Your task to perform on an android device: open app "Lyft - Rideshare, Bikes, Scooters & Transit" Image 0: 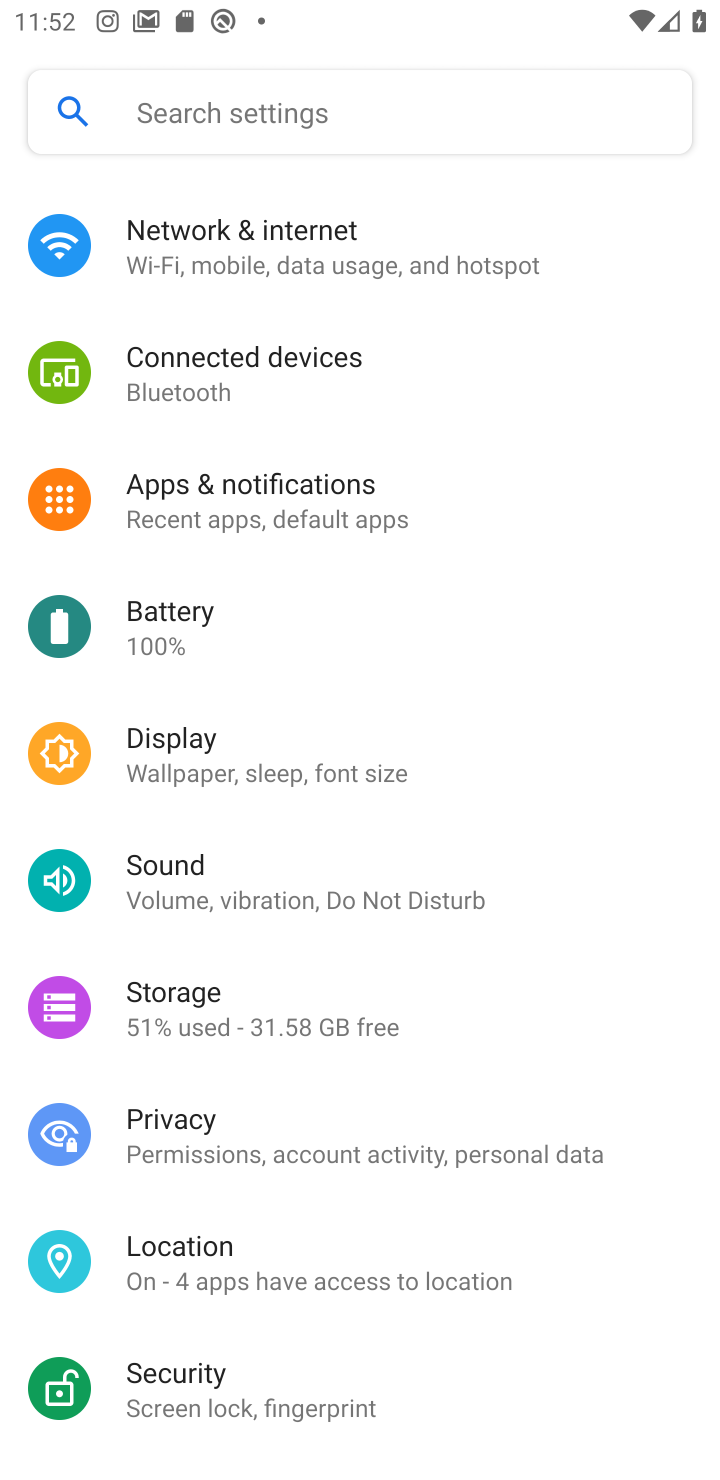
Step 0: press home button
Your task to perform on an android device: open app "Lyft - Rideshare, Bikes, Scooters & Transit" Image 1: 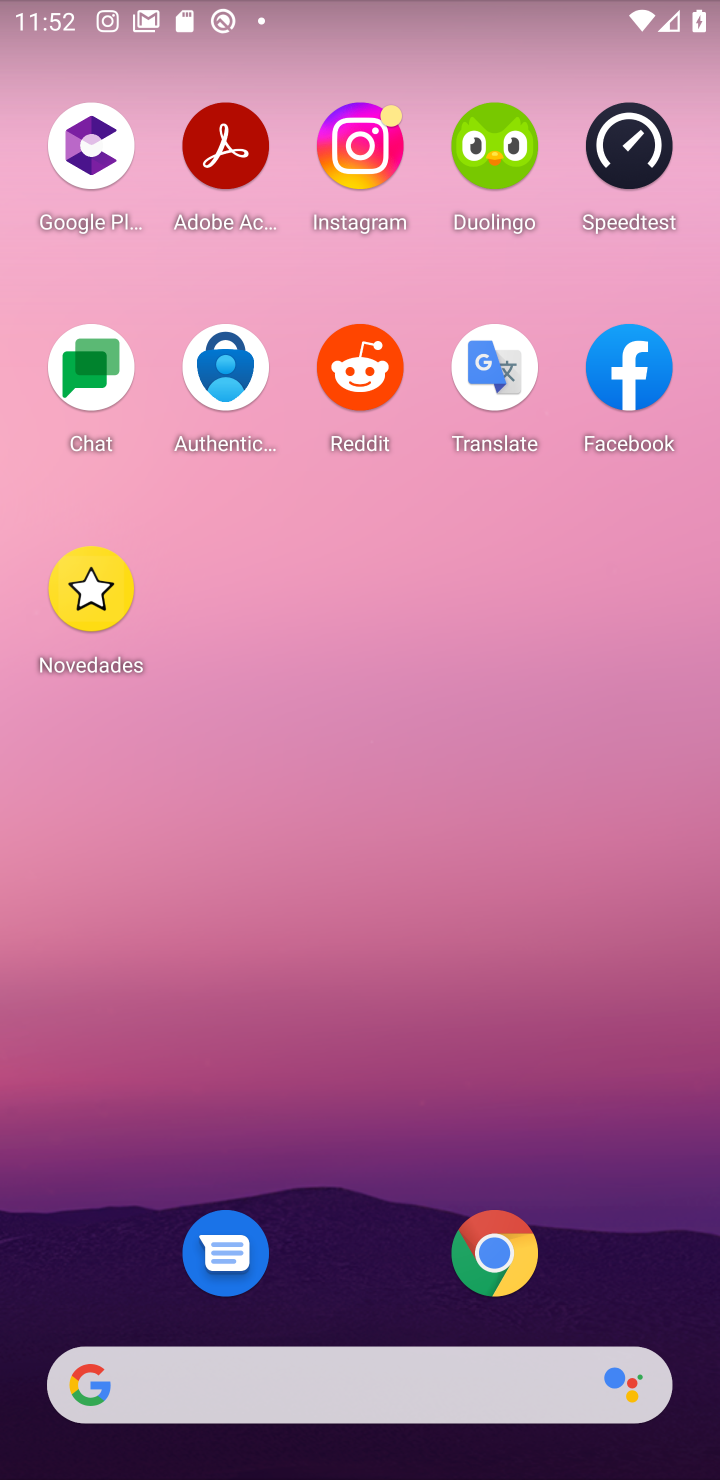
Step 1: drag from (307, 955) to (433, 129)
Your task to perform on an android device: open app "Lyft - Rideshare, Bikes, Scooters & Transit" Image 2: 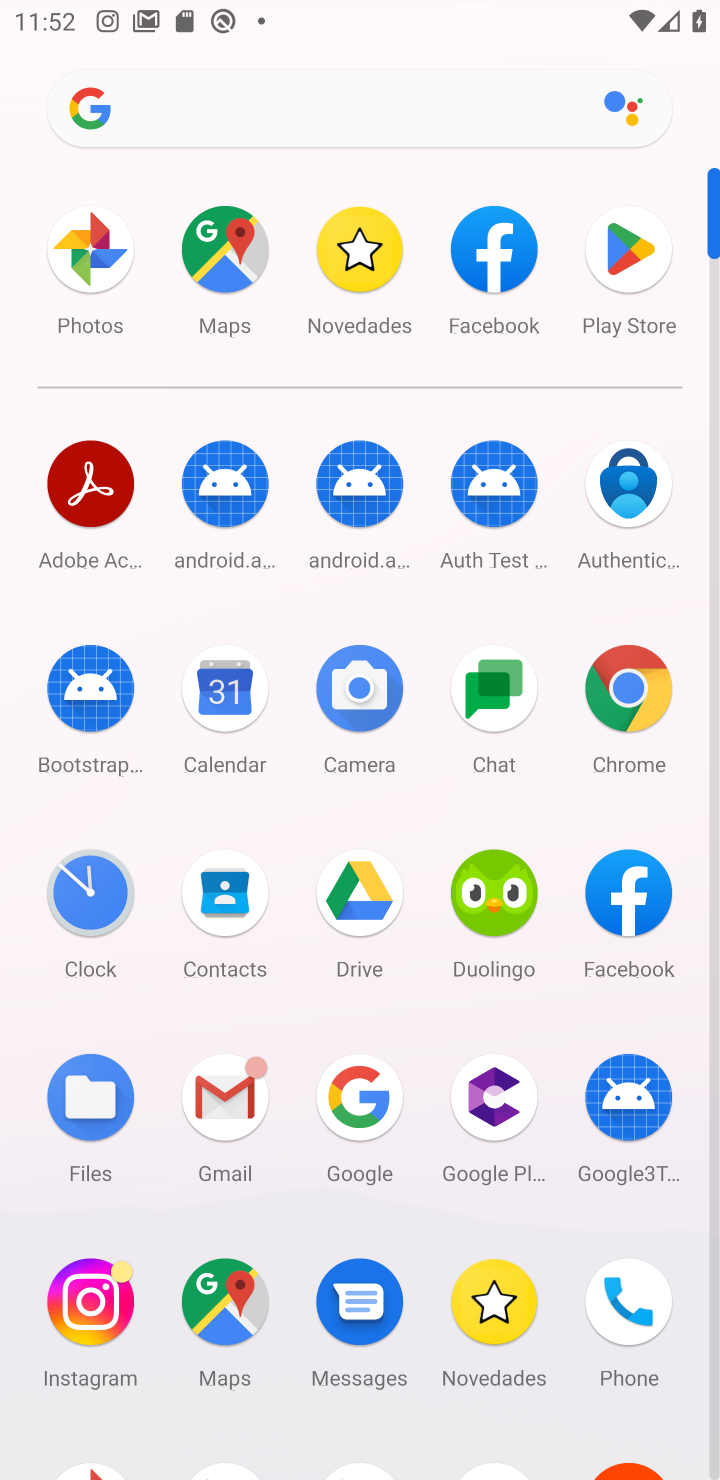
Step 2: click (626, 265)
Your task to perform on an android device: open app "Lyft - Rideshare, Bikes, Scooters & Transit" Image 3: 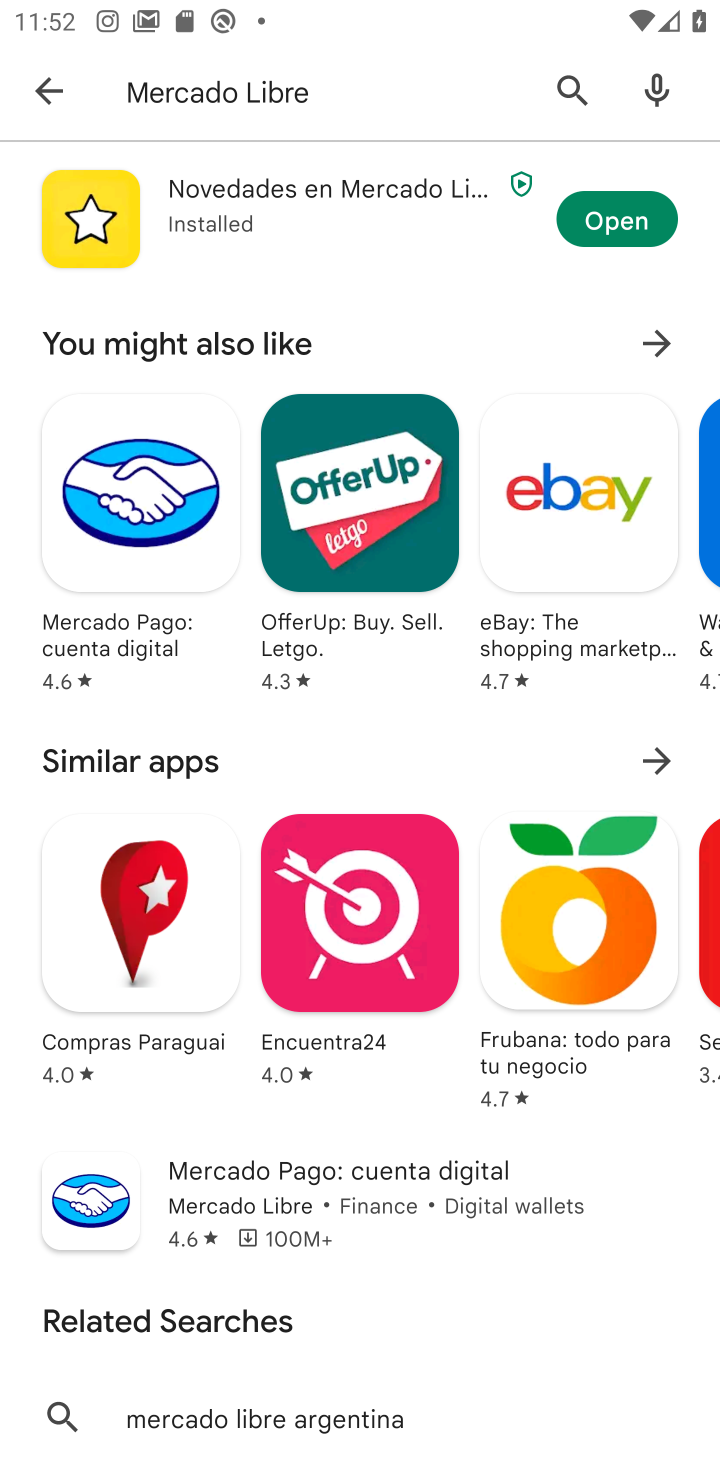
Step 3: click (359, 72)
Your task to perform on an android device: open app "Lyft - Rideshare, Bikes, Scooters & Transit" Image 4: 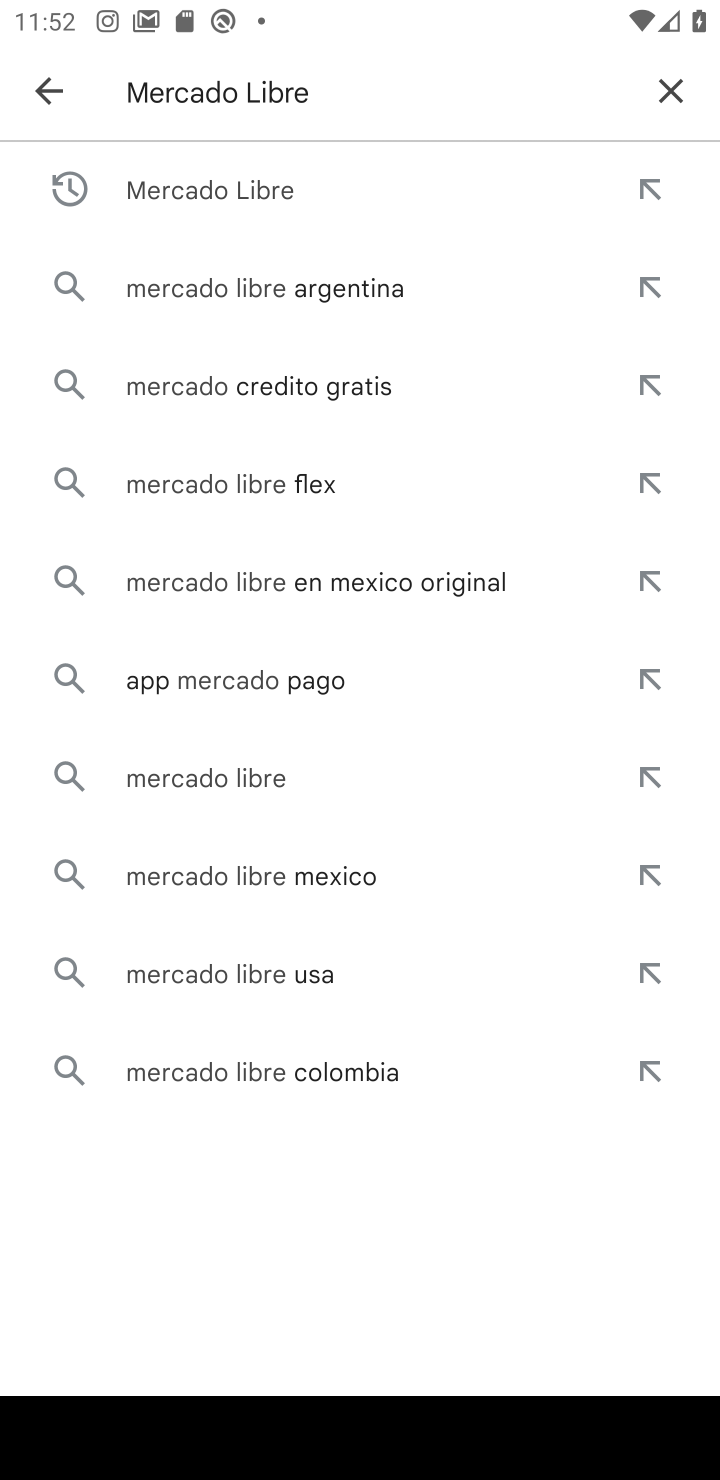
Step 4: click (674, 87)
Your task to perform on an android device: open app "Lyft - Rideshare, Bikes, Scooters & Transit" Image 5: 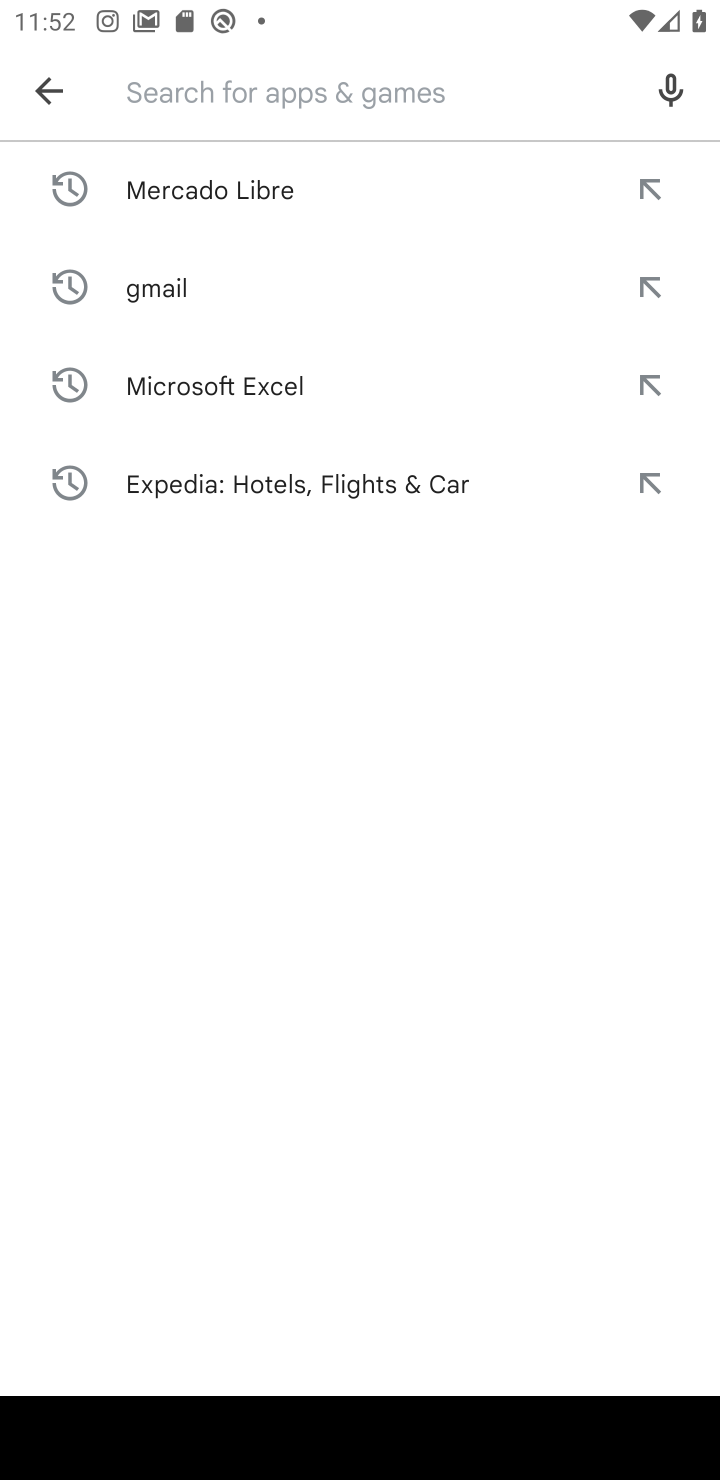
Step 5: type "Lyft - Rideshare, Bikes, Scooters & Transit"
Your task to perform on an android device: open app "Lyft - Rideshare, Bikes, Scooters & Transit" Image 6: 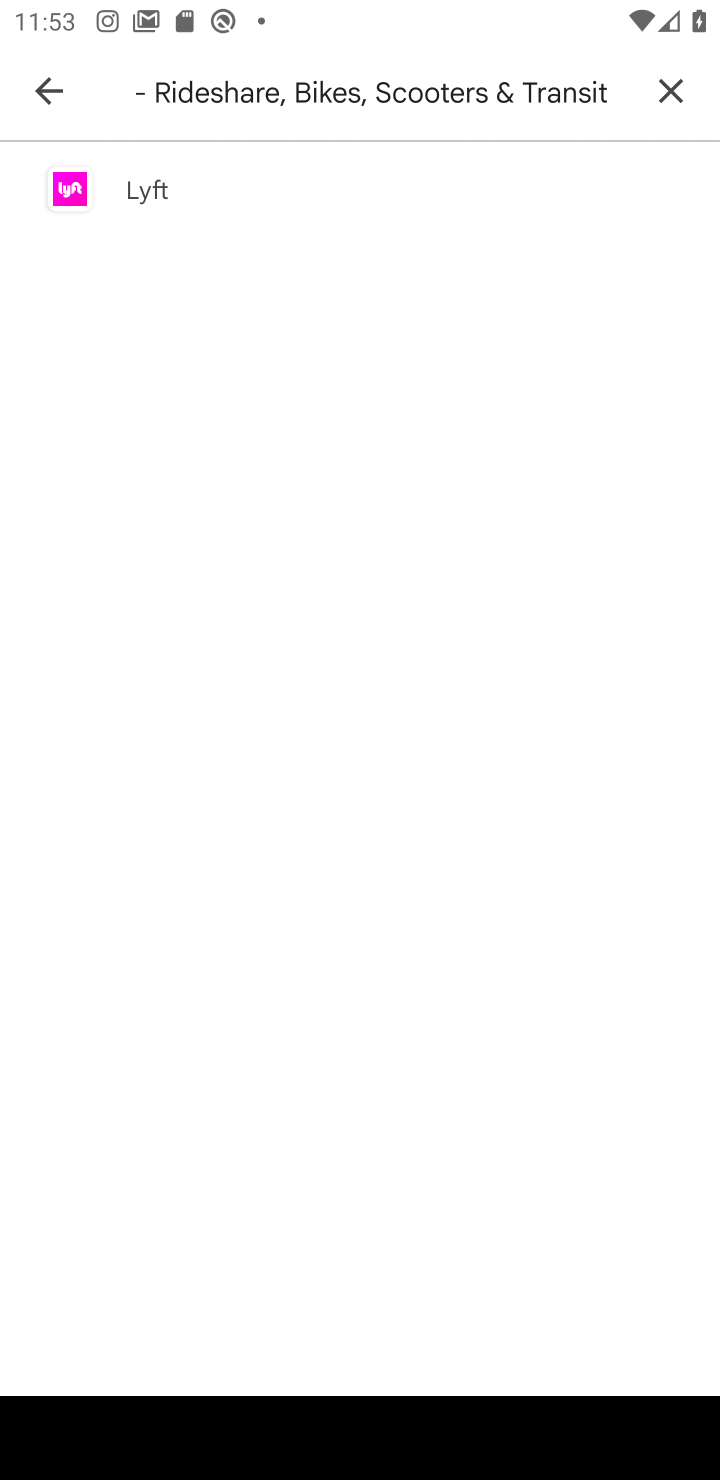
Step 6: press enter
Your task to perform on an android device: open app "Lyft - Rideshare, Bikes, Scooters & Transit" Image 7: 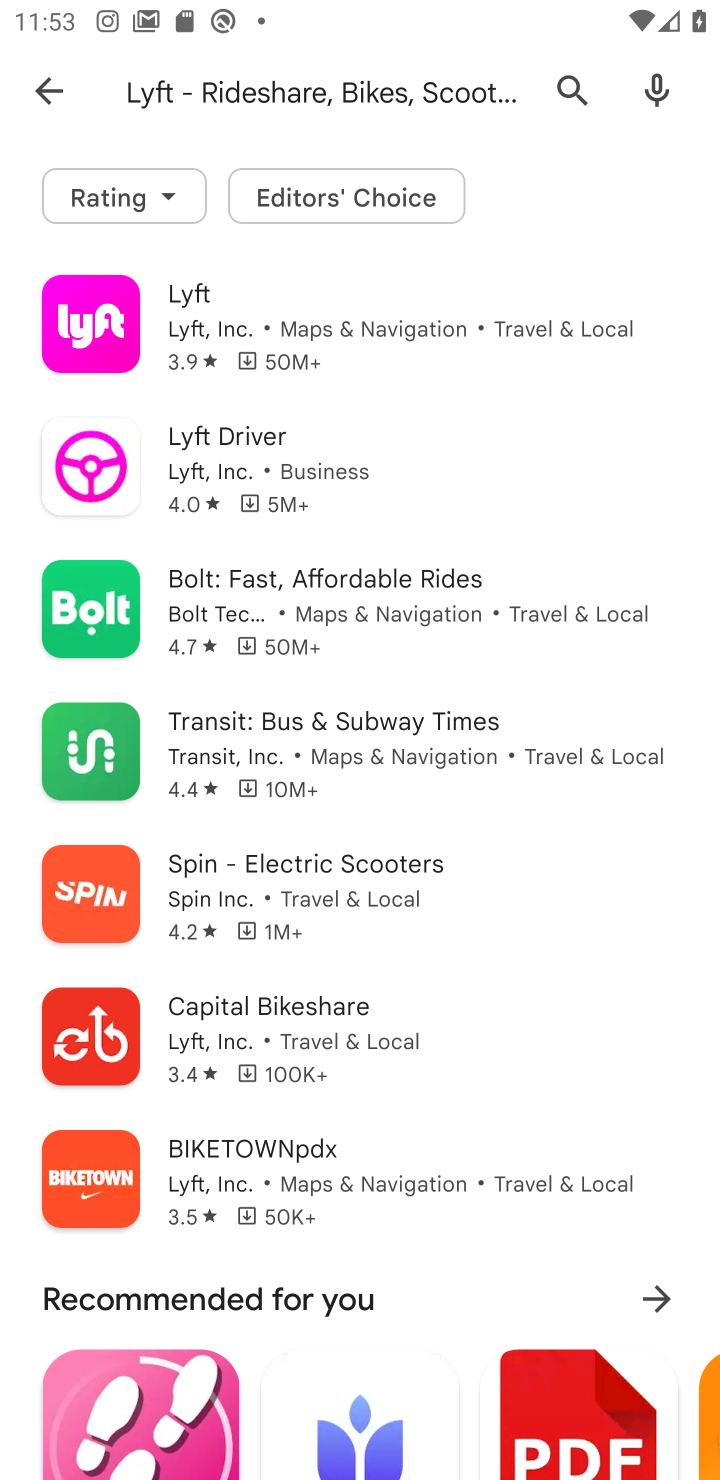
Step 7: click (417, 331)
Your task to perform on an android device: open app "Lyft - Rideshare, Bikes, Scooters & Transit" Image 8: 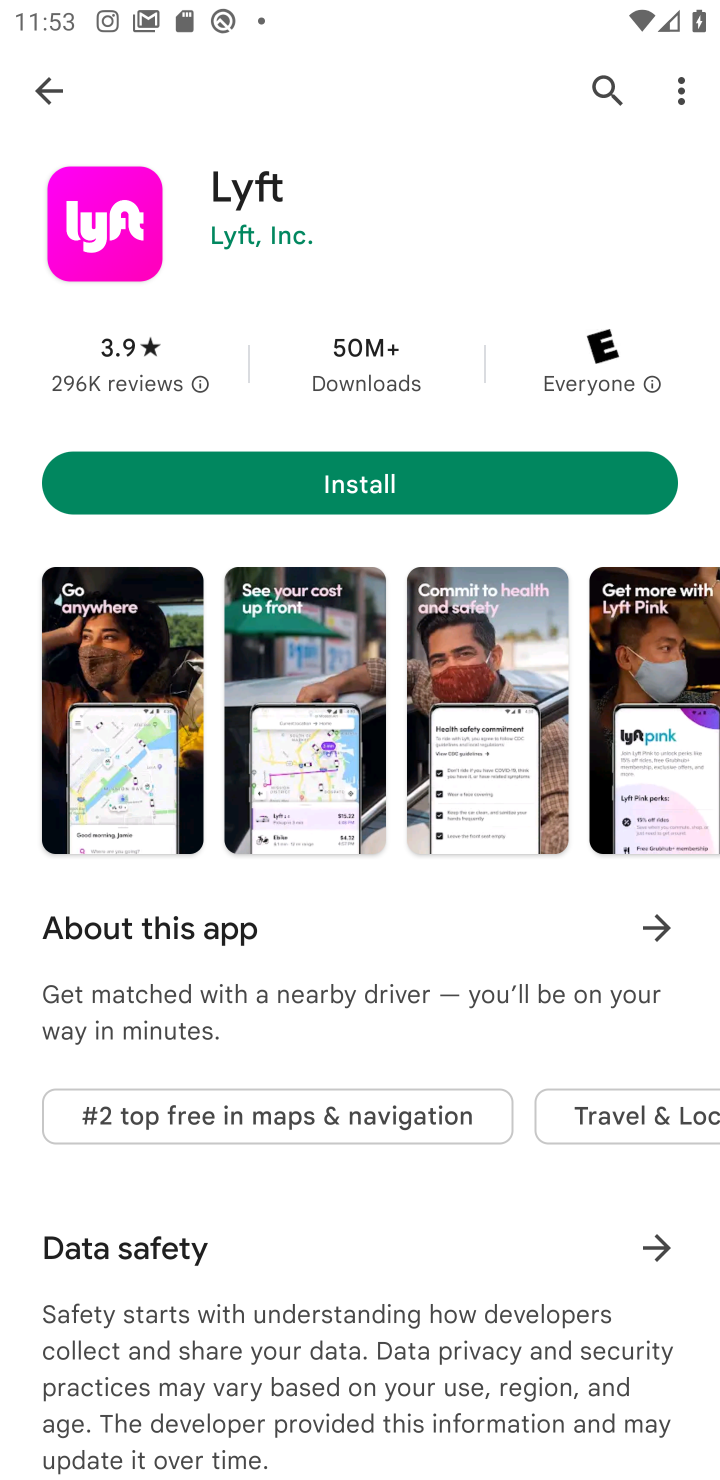
Step 8: task complete